Your task to perform on an android device: Open the stopwatch Image 0: 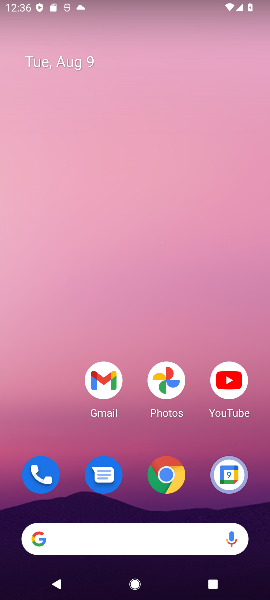
Step 0: drag from (128, 441) to (143, 28)
Your task to perform on an android device: Open the stopwatch Image 1: 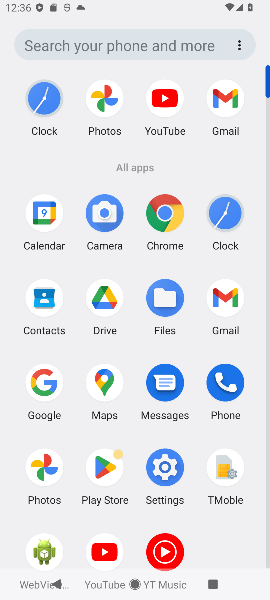
Step 1: click (228, 205)
Your task to perform on an android device: Open the stopwatch Image 2: 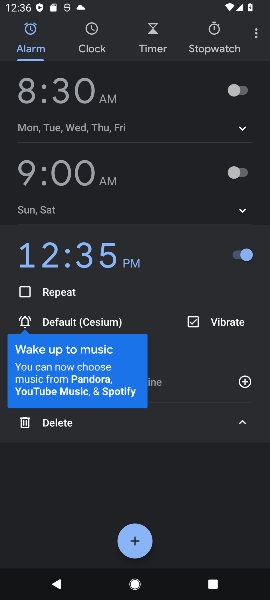
Step 2: click (215, 40)
Your task to perform on an android device: Open the stopwatch Image 3: 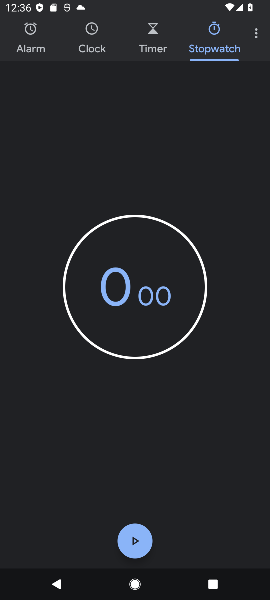
Step 3: task complete